Your task to perform on an android device: Go to location settings Image 0: 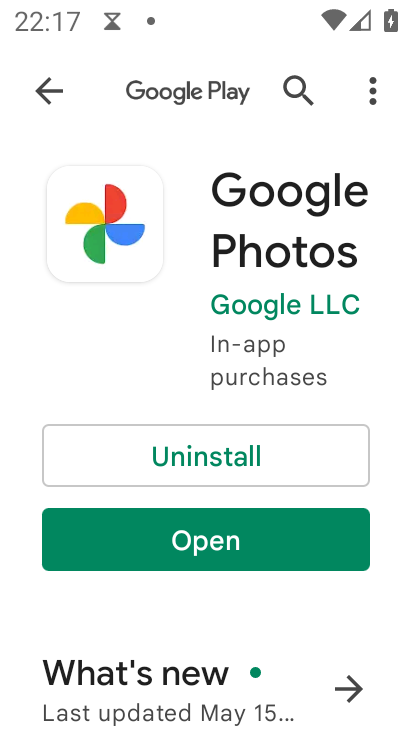
Step 0: press home button
Your task to perform on an android device: Go to location settings Image 1: 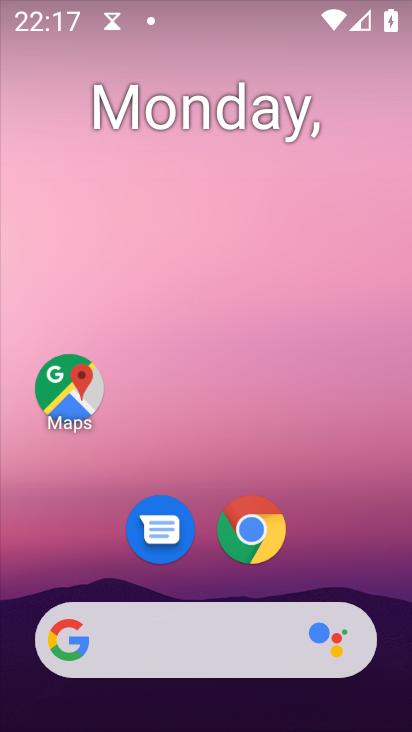
Step 1: drag from (331, 552) to (240, 136)
Your task to perform on an android device: Go to location settings Image 2: 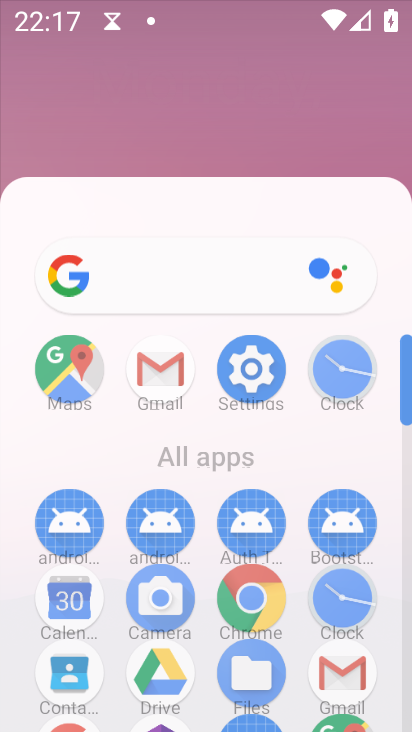
Step 2: click (232, 80)
Your task to perform on an android device: Go to location settings Image 3: 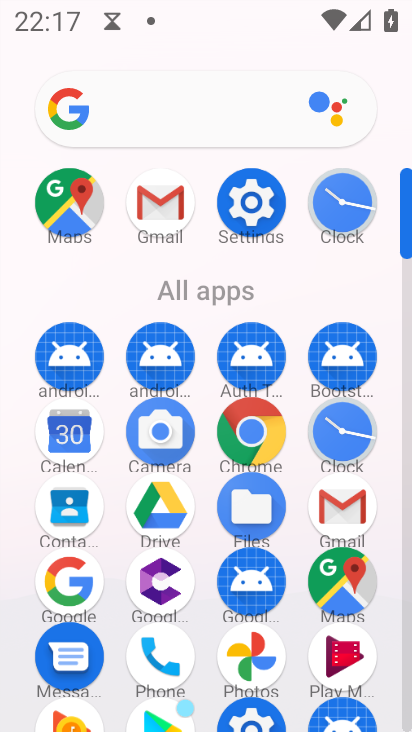
Step 3: click (234, 28)
Your task to perform on an android device: Go to location settings Image 4: 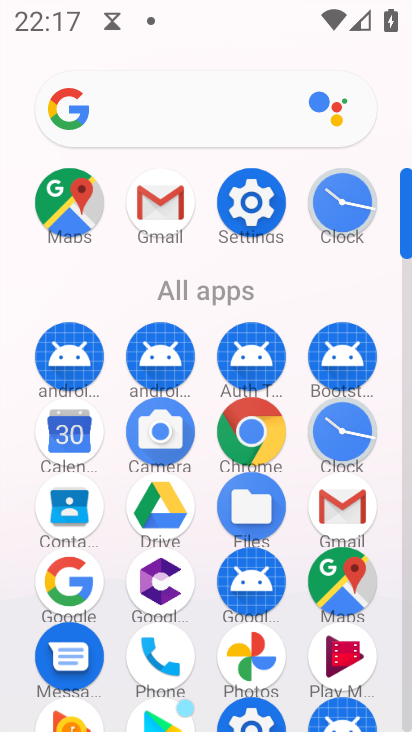
Step 4: click (250, 203)
Your task to perform on an android device: Go to location settings Image 5: 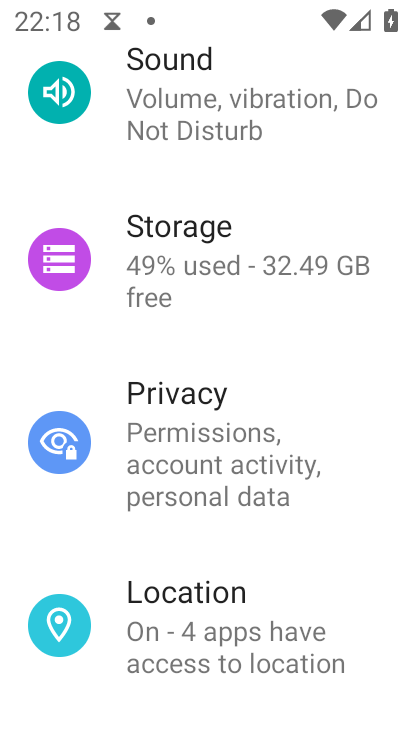
Step 5: drag from (208, 539) to (225, 439)
Your task to perform on an android device: Go to location settings Image 6: 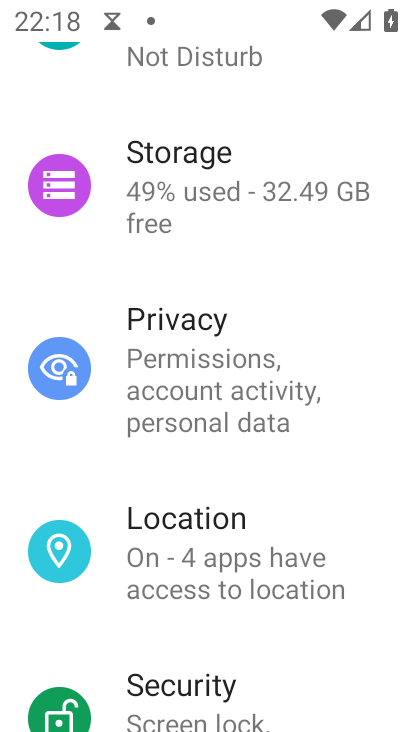
Step 6: click (193, 513)
Your task to perform on an android device: Go to location settings Image 7: 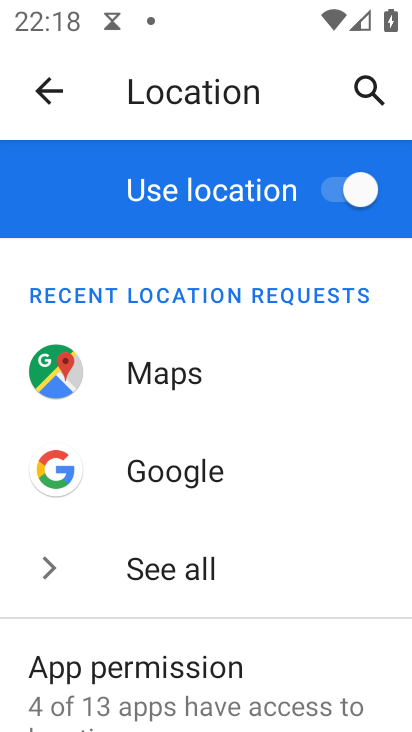
Step 7: task complete